Your task to perform on an android device: Open calendar and show me the second week of next month Image 0: 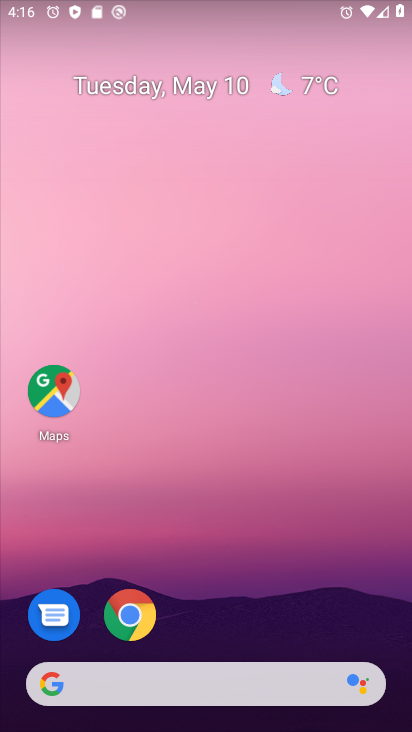
Step 0: drag from (269, 580) to (263, 47)
Your task to perform on an android device: Open calendar and show me the second week of next month Image 1: 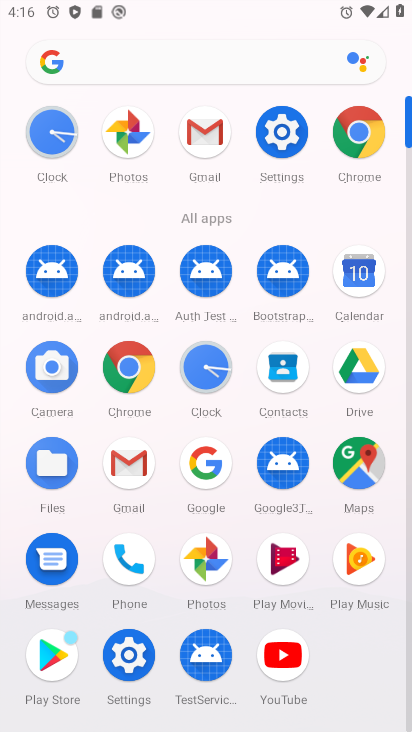
Step 1: drag from (16, 576) to (19, 200)
Your task to perform on an android device: Open calendar and show me the second week of next month Image 2: 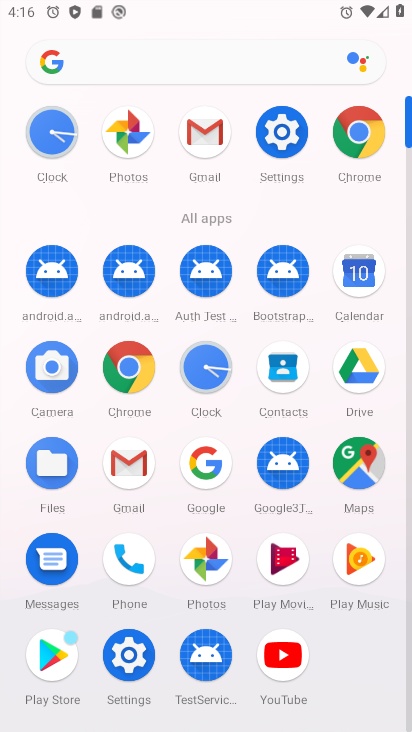
Step 2: click (357, 268)
Your task to perform on an android device: Open calendar and show me the second week of next month Image 3: 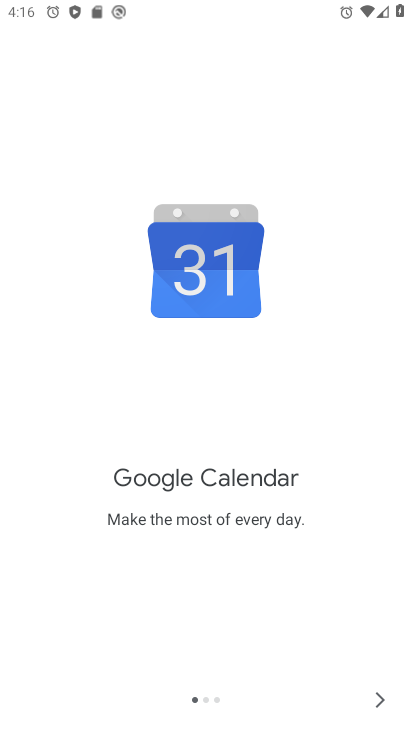
Step 3: click (378, 689)
Your task to perform on an android device: Open calendar and show me the second week of next month Image 4: 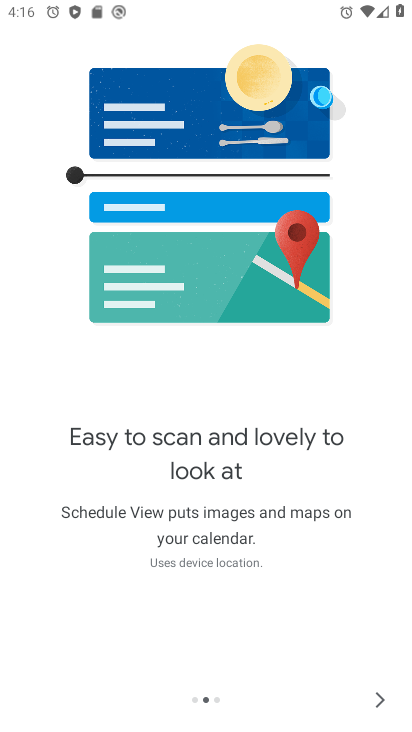
Step 4: click (378, 689)
Your task to perform on an android device: Open calendar and show me the second week of next month Image 5: 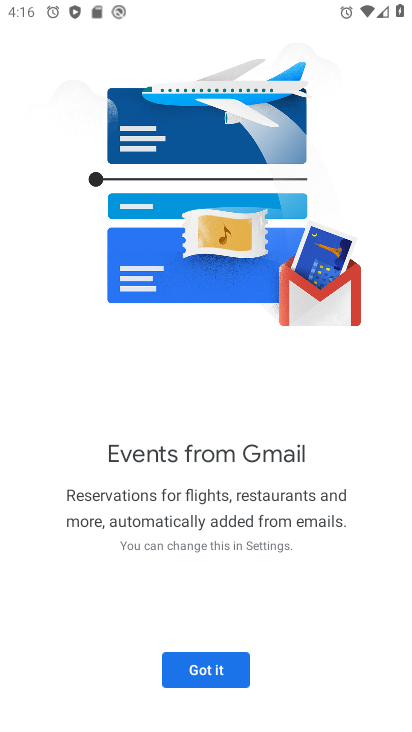
Step 5: click (223, 664)
Your task to perform on an android device: Open calendar and show me the second week of next month Image 6: 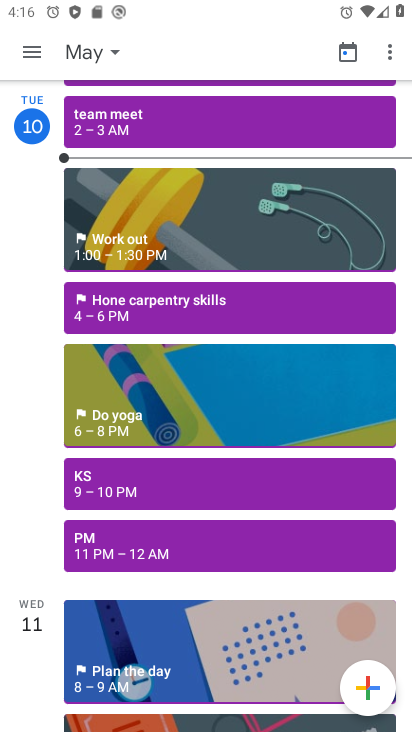
Step 6: click (91, 50)
Your task to perform on an android device: Open calendar and show me the second week of next month Image 7: 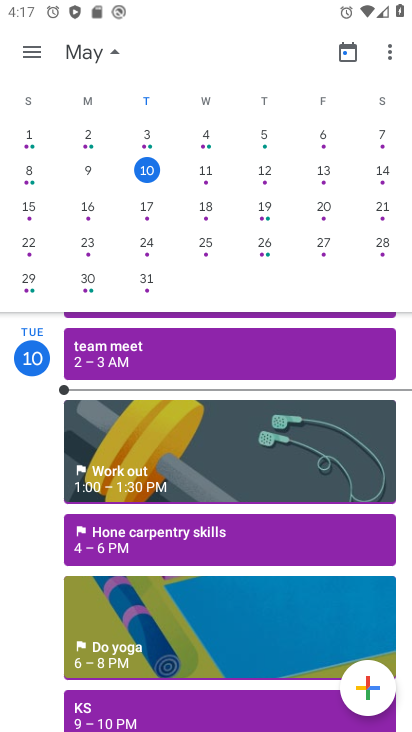
Step 7: drag from (389, 186) to (0, 31)
Your task to perform on an android device: Open calendar and show me the second week of next month Image 8: 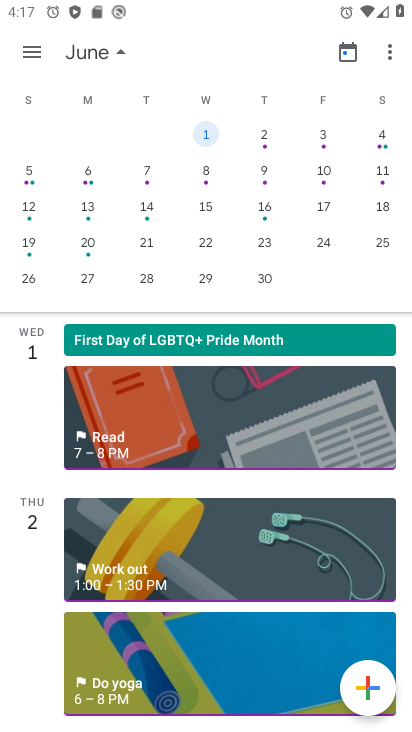
Step 8: click (29, 173)
Your task to perform on an android device: Open calendar and show me the second week of next month Image 9: 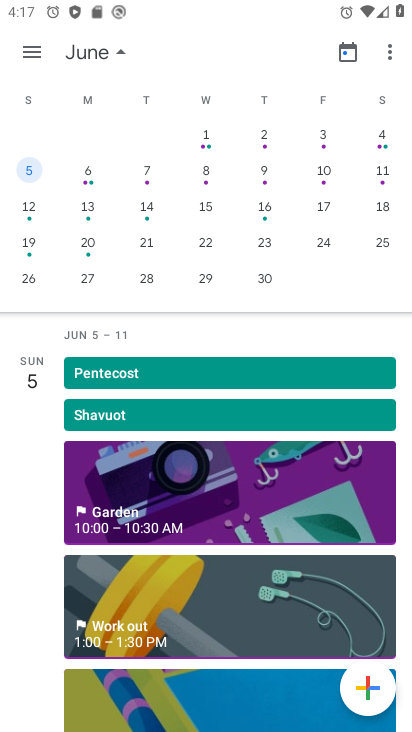
Step 9: click (36, 45)
Your task to perform on an android device: Open calendar and show me the second week of next month Image 10: 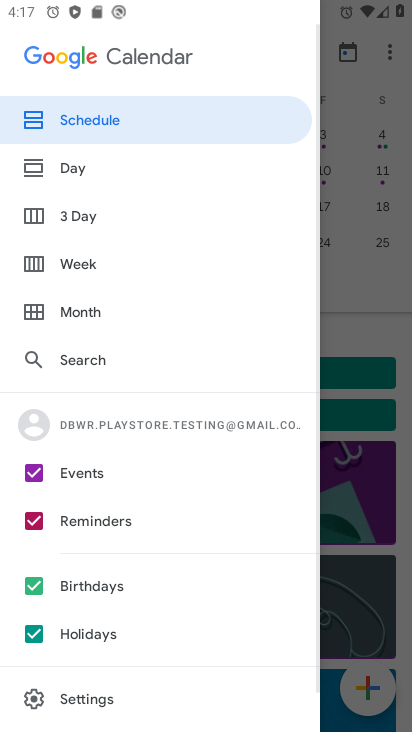
Step 10: click (102, 263)
Your task to perform on an android device: Open calendar and show me the second week of next month Image 11: 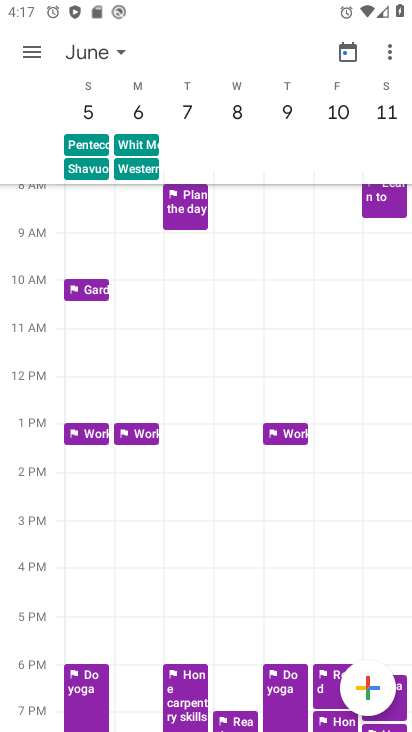
Step 11: task complete